Your task to perform on an android device: Go to settings Image 0: 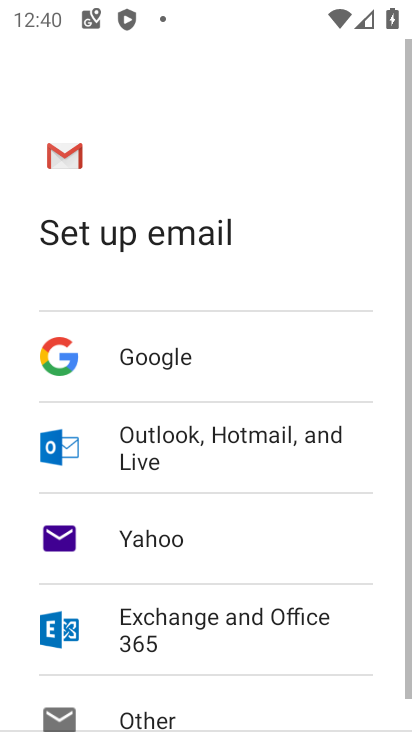
Step 0: press home button
Your task to perform on an android device: Go to settings Image 1: 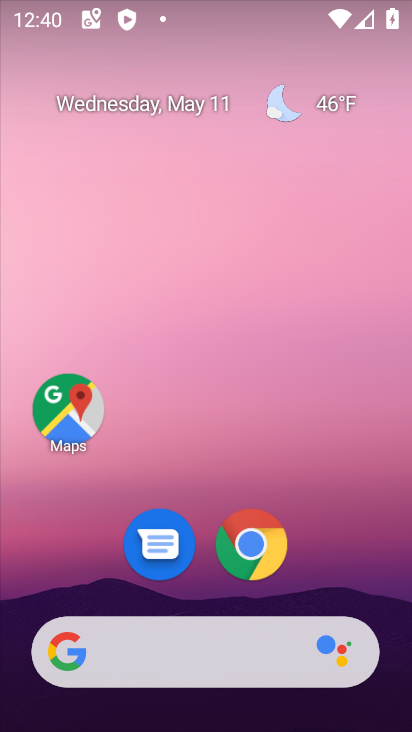
Step 1: drag from (390, 642) to (319, 132)
Your task to perform on an android device: Go to settings Image 2: 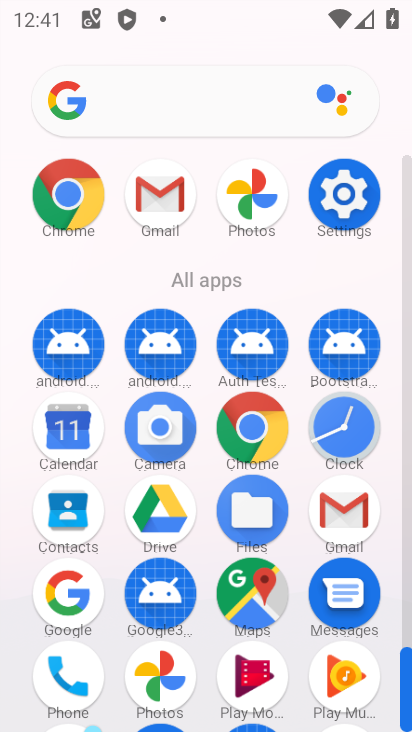
Step 2: drag from (409, 629) to (402, 559)
Your task to perform on an android device: Go to settings Image 3: 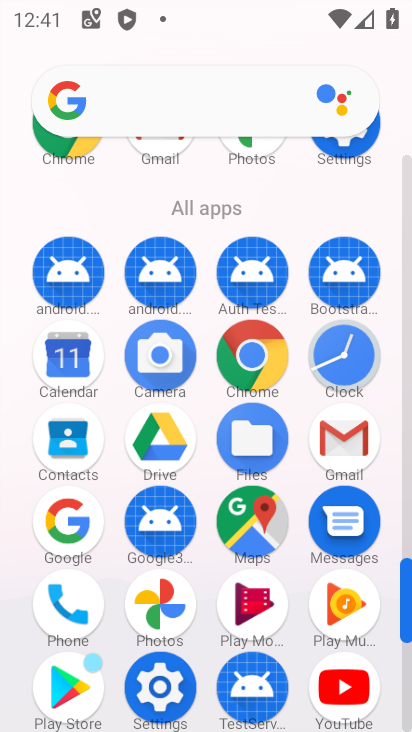
Step 3: click (161, 687)
Your task to perform on an android device: Go to settings Image 4: 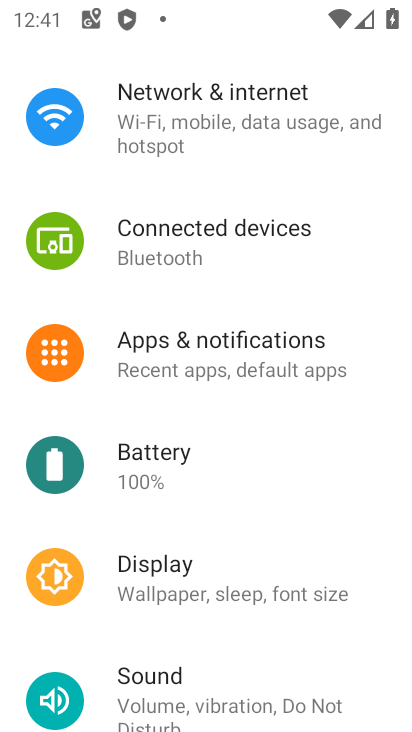
Step 4: task complete